Your task to perform on an android device: empty trash in the gmail app Image 0: 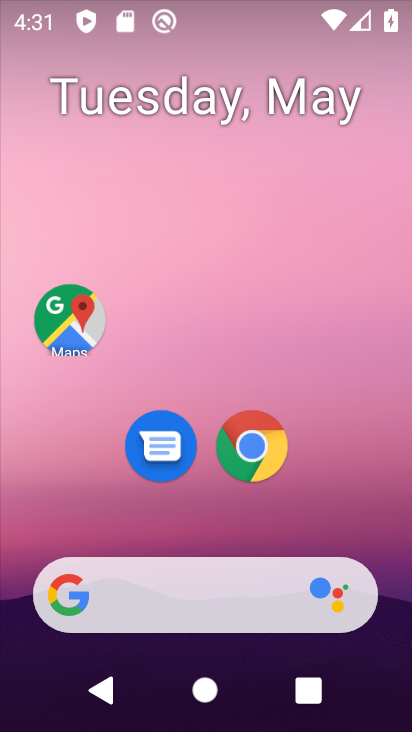
Step 0: drag from (362, 520) to (292, 105)
Your task to perform on an android device: empty trash in the gmail app Image 1: 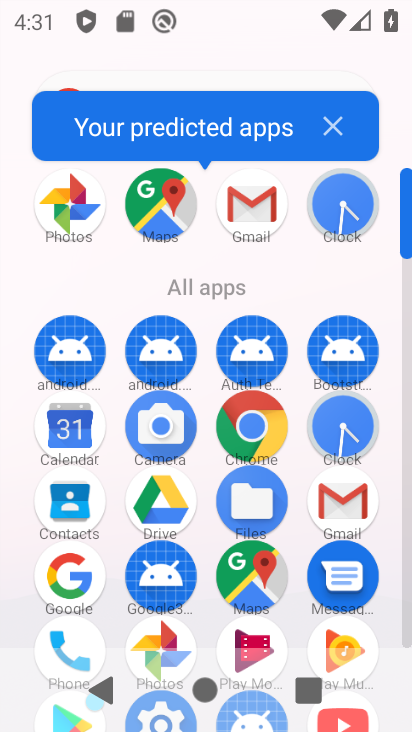
Step 1: click (253, 208)
Your task to perform on an android device: empty trash in the gmail app Image 2: 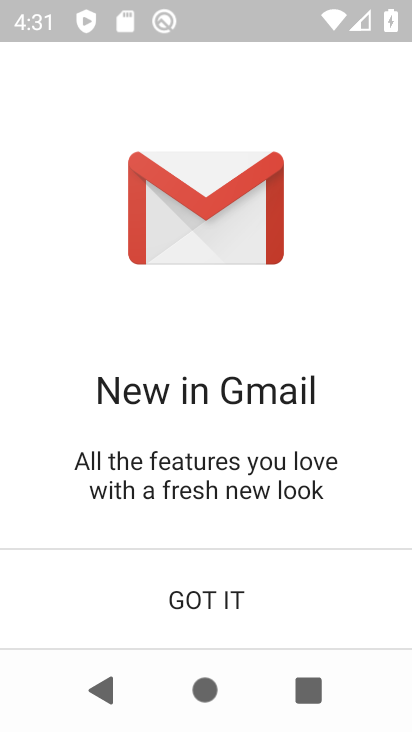
Step 2: click (240, 612)
Your task to perform on an android device: empty trash in the gmail app Image 3: 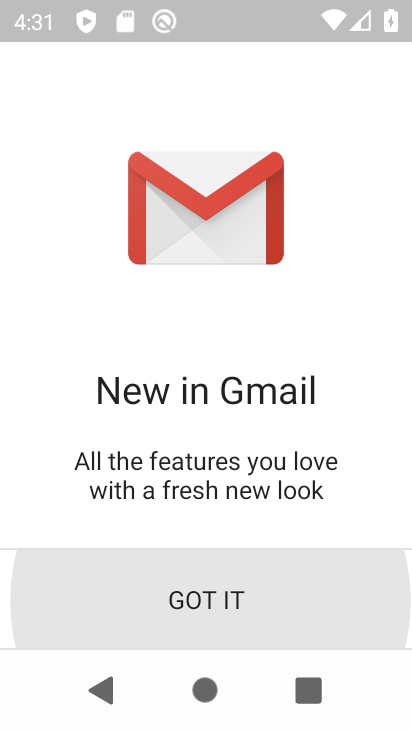
Step 3: click (240, 604)
Your task to perform on an android device: empty trash in the gmail app Image 4: 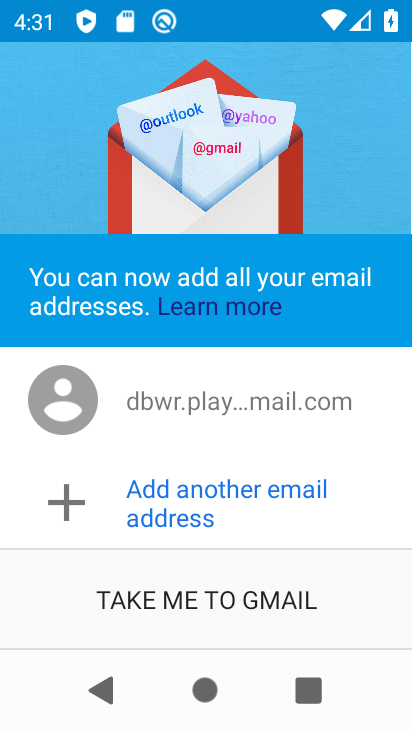
Step 4: click (194, 593)
Your task to perform on an android device: empty trash in the gmail app Image 5: 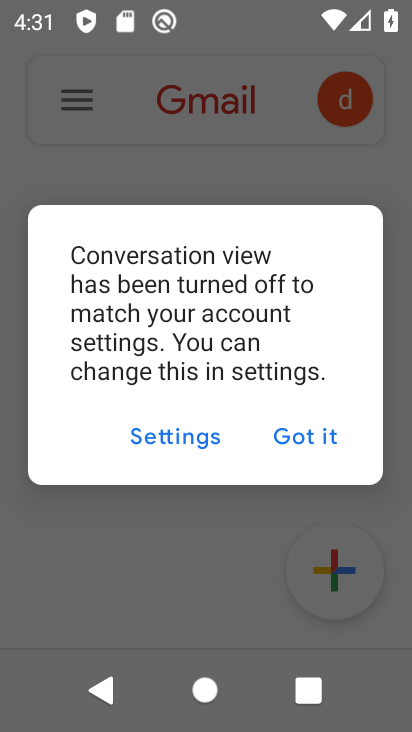
Step 5: click (291, 434)
Your task to perform on an android device: empty trash in the gmail app Image 6: 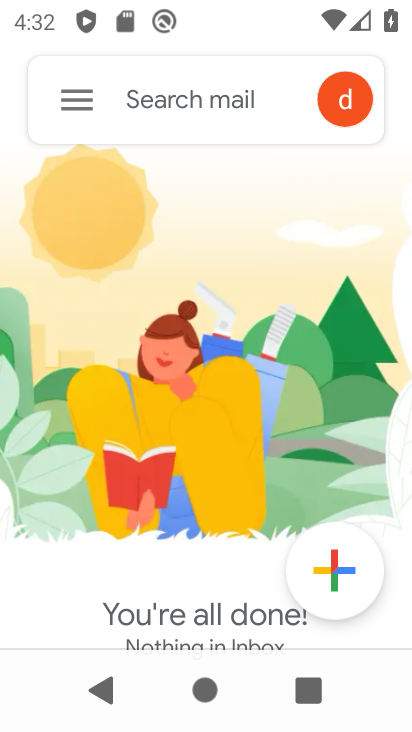
Step 6: click (69, 116)
Your task to perform on an android device: empty trash in the gmail app Image 7: 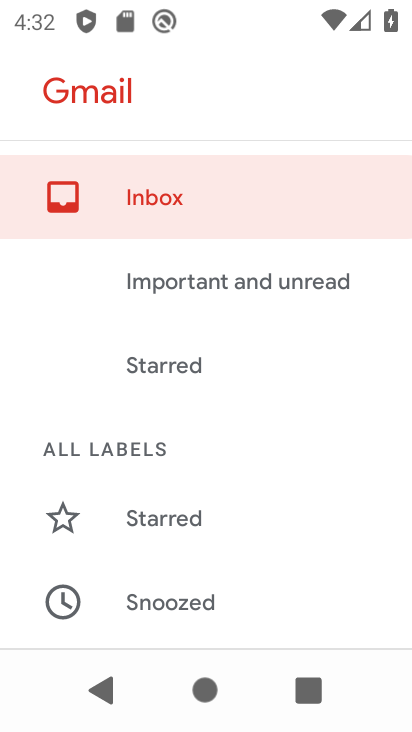
Step 7: drag from (284, 529) to (152, 0)
Your task to perform on an android device: empty trash in the gmail app Image 8: 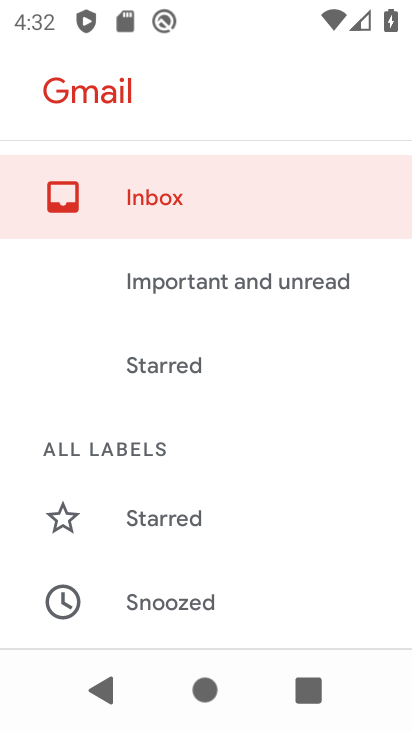
Step 8: drag from (188, 610) to (160, 109)
Your task to perform on an android device: empty trash in the gmail app Image 9: 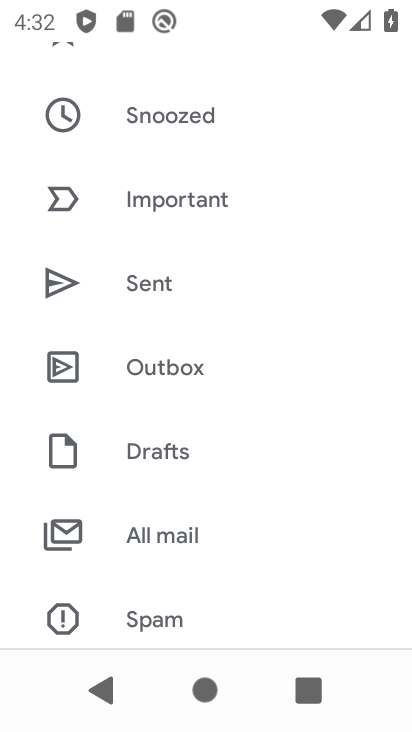
Step 9: drag from (188, 585) to (157, 80)
Your task to perform on an android device: empty trash in the gmail app Image 10: 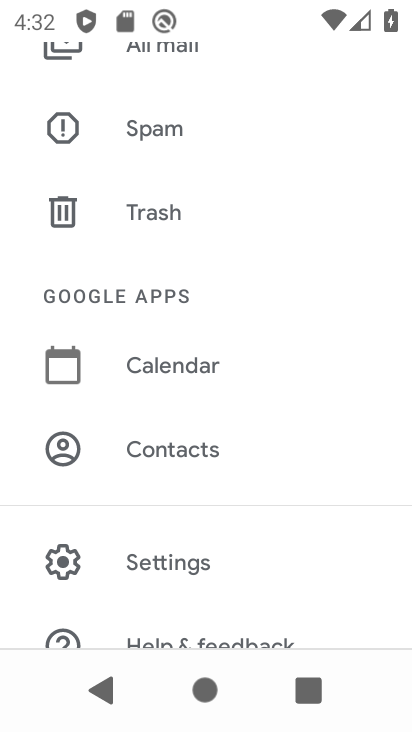
Step 10: drag from (199, 379) to (214, 465)
Your task to perform on an android device: empty trash in the gmail app Image 11: 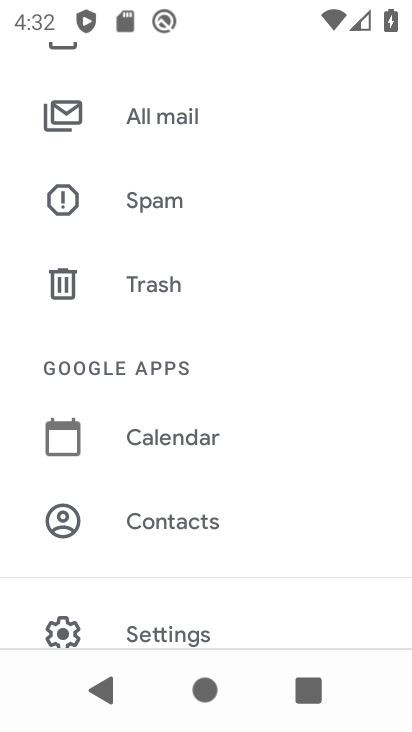
Step 11: click (171, 310)
Your task to perform on an android device: empty trash in the gmail app Image 12: 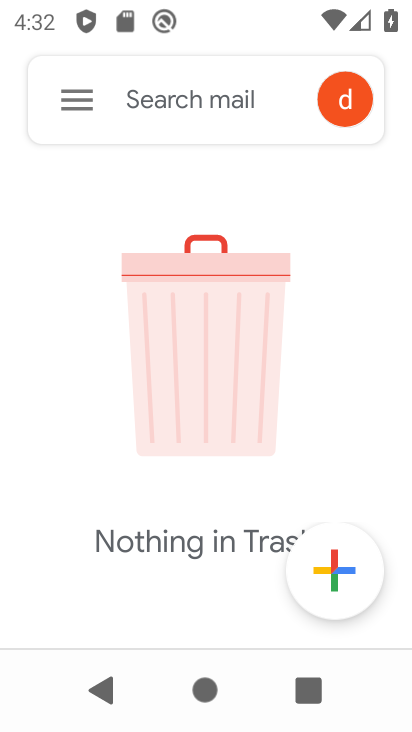
Step 12: task complete